Your task to perform on an android device: change the upload size in google photos Image 0: 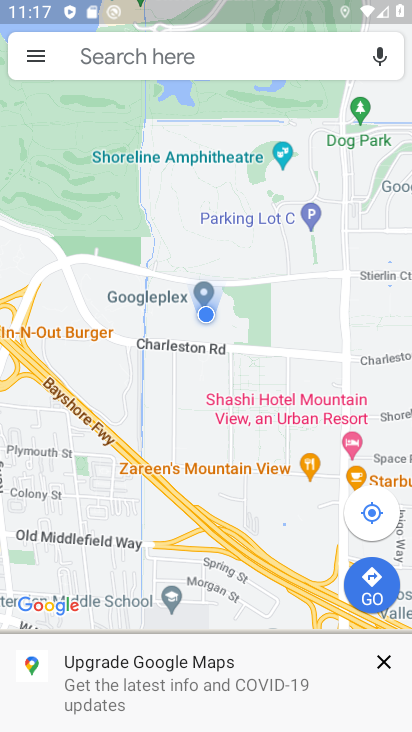
Step 0: press home button
Your task to perform on an android device: change the upload size in google photos Image 1: 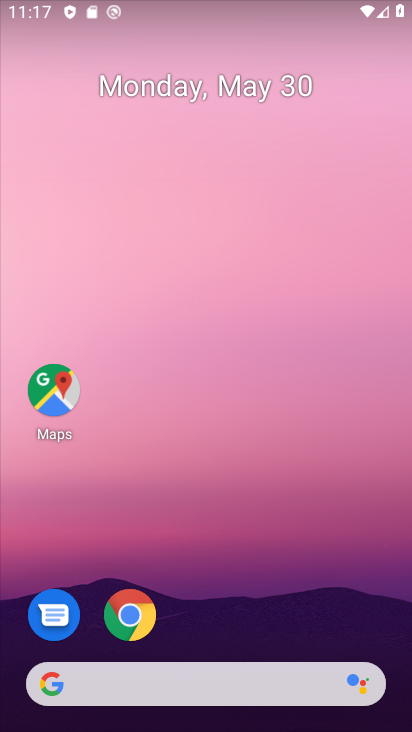
Step 1: drag from (331, 571) to (349, 224)
Your task to perform on an android device: change the upload size in google photos Image 2: 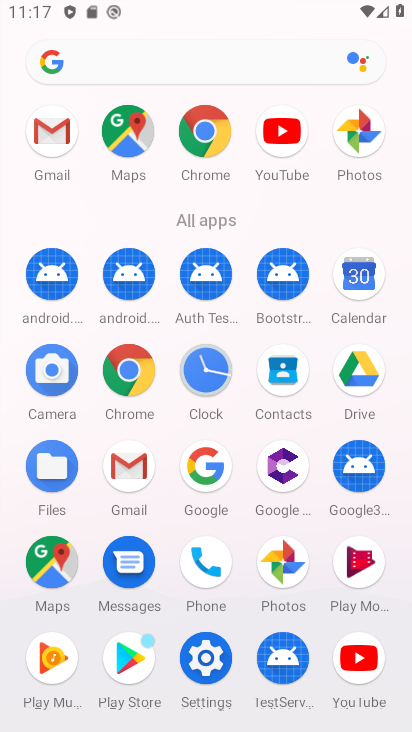
Step 2: click (296, 561)
Your task to perform on an android device: change the upload size in google photos Image 3: 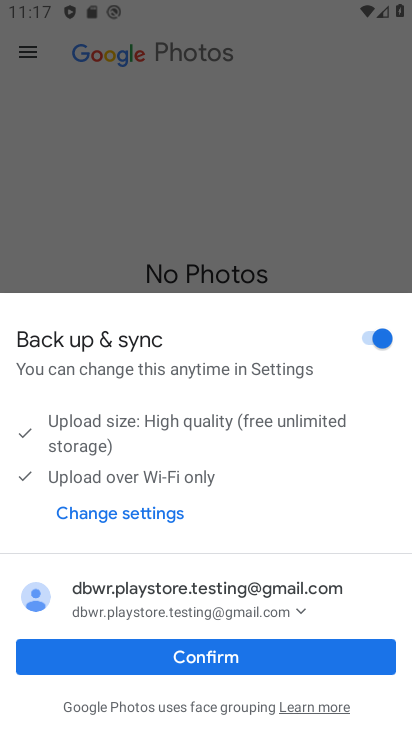
Step 3: click (270, 666)
Your task to perform on an android device: change the upload size in google photos Image 4: 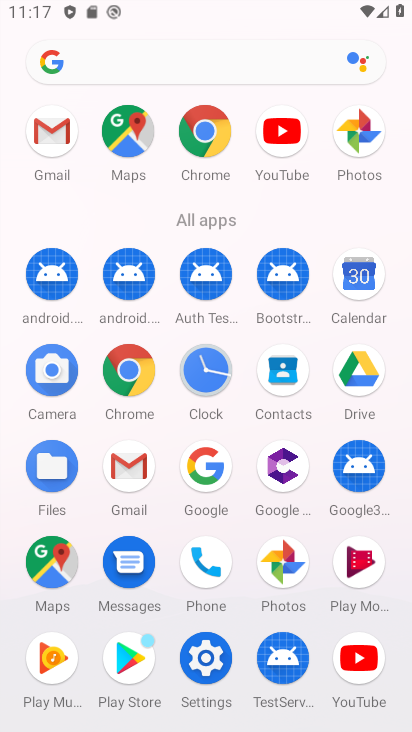
Step 4: click (283, 578)
Your task to perform on an android device: change the upload size in google photos Image 5: 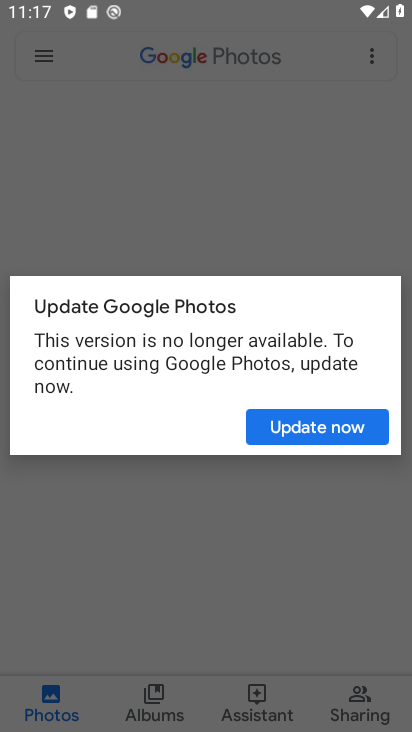
Step 5: click (272, 440)
Your task to perform on an android device: change the upload size in google photos Image 6: 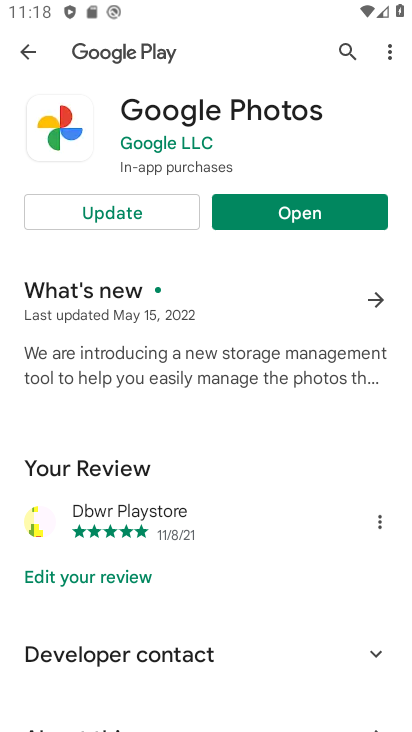
Step 6: click (177, 213)
Your task to perform on an android device: change the upload size in google photos Image 7: 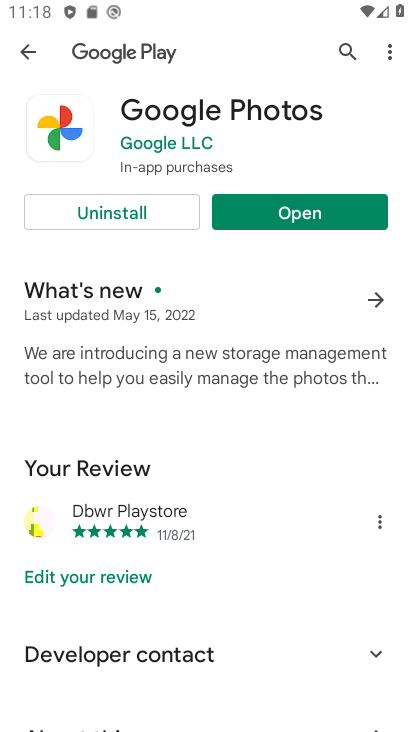
Step 7: click (313, 221)
Your task to perform on an android device: change the upload size in google photos Image 8: 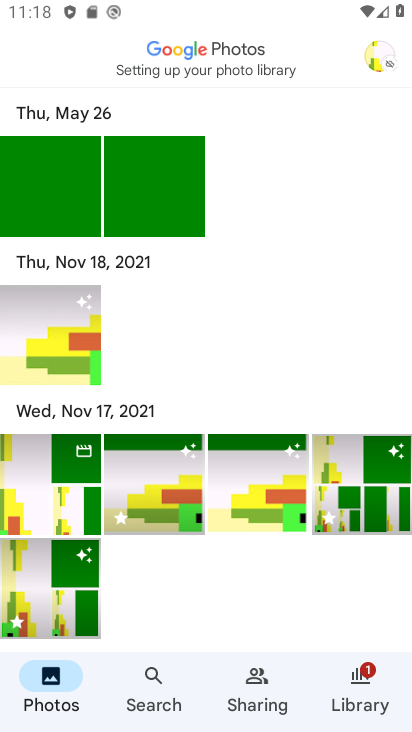
Step 8: click (387, 59)
Your task to perform on an android device: change the upload size in google photos Image 9: 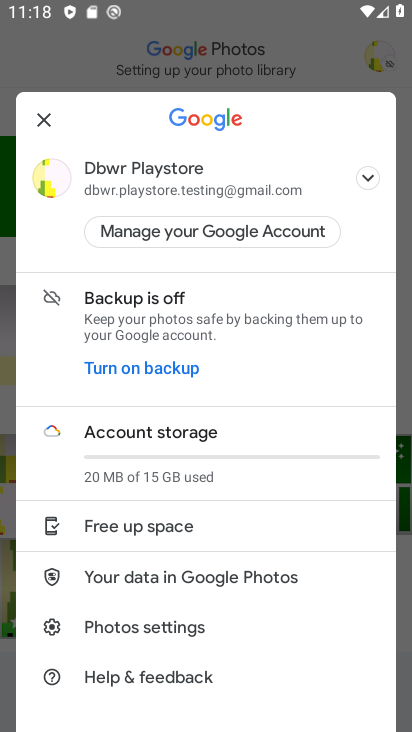
Step 9: drag from (266, 508) to (266, 386)
Your task to perform on an android device: change the upload size in google photos Image 10: 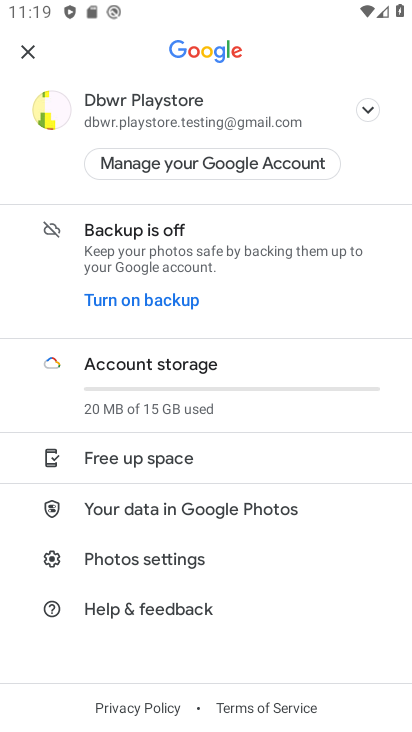
Step 10: click (189, 563)
Your task to perform on an android device: change the upload size in google photos Image 11: 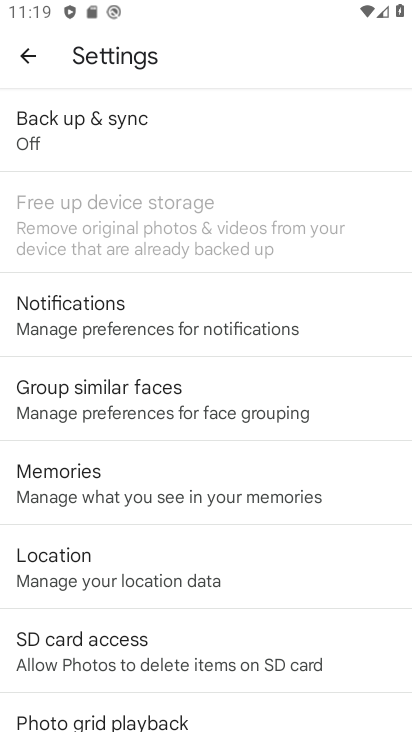
Step 11: click (125, 123)
Your task to perform on an android device: change the upload size in google photos Image 12: 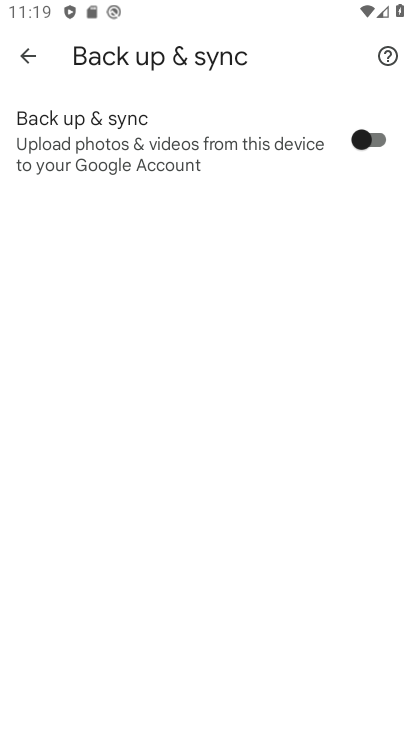
Step 12: click (364, 134)
Your task to perform on an android device: change the upload size in google photos Image 13: 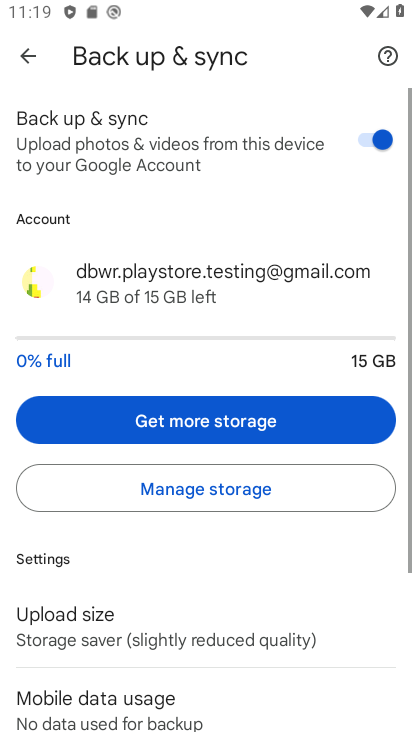
Step 13: drag from (218, 494) to (225, 314)
Your task to perform on an android device: change the upload size in google photos Image 14: 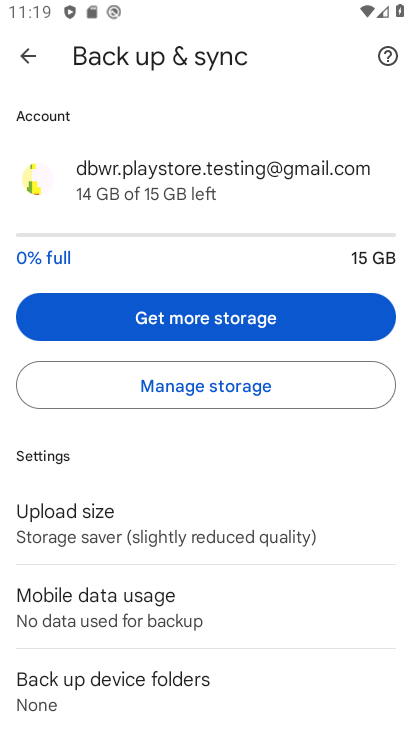
Step 14: click (249, 540)
Your task to perform on an android device: change the upload size in google photos Image 15: 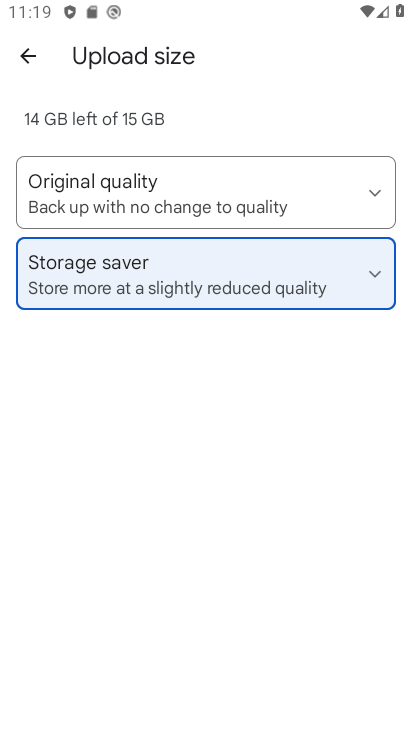
Step 15: click (256, 207)
Your task to perform on an android device: change the upload size in google photos Image 16: 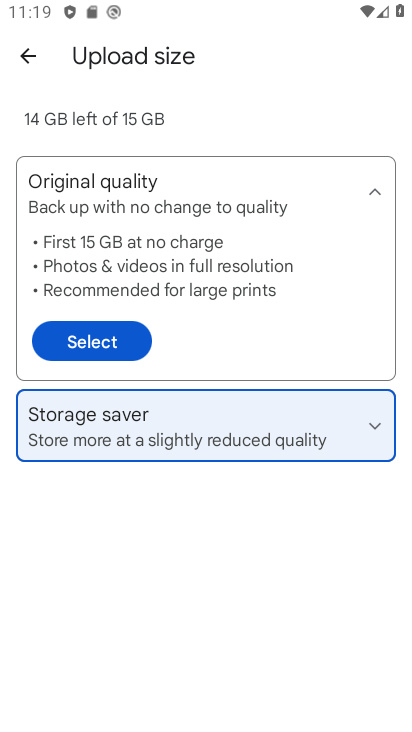
Step 16: click (102, 344)
Your task to perform on an android device: change the upload size in google photos Image 17: 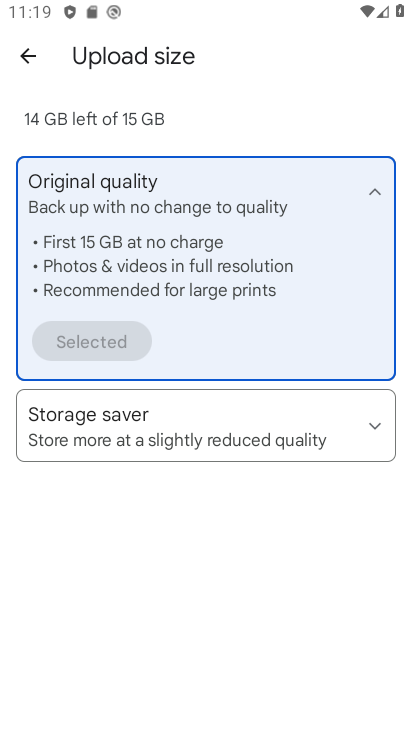
Step 17: task complete